Your task to perform on an android device: Show me popular games on the Play Store Image 0: 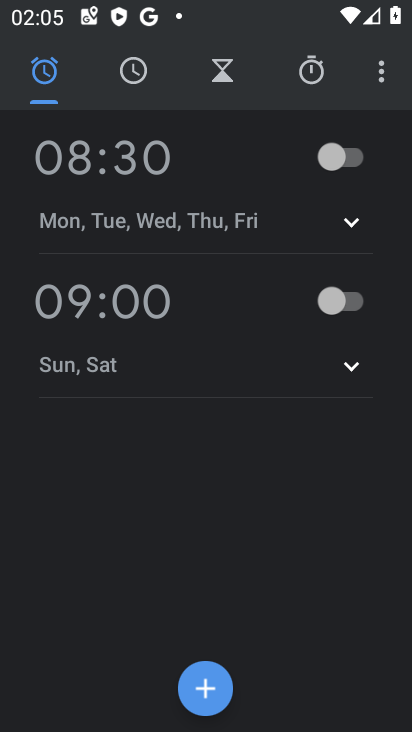
Step 0: press home button
Your task to perform on an android device: Show me popular games on the Play Store Image 1: 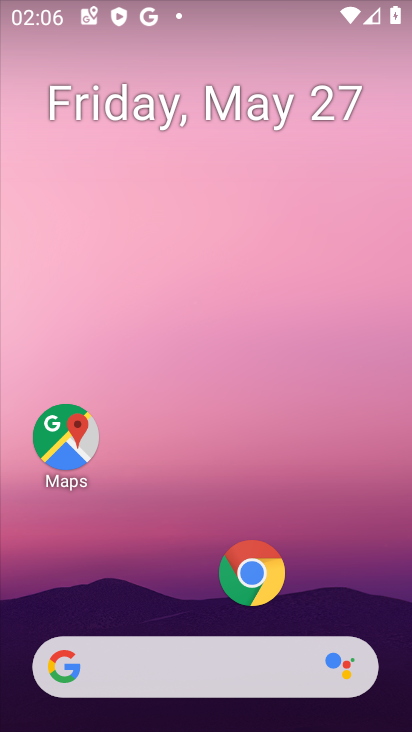
Step 1: drag from (251, 621) to (215, 48)
Your task to perform on an android device: Show me popular games on the Play Store Image 2: 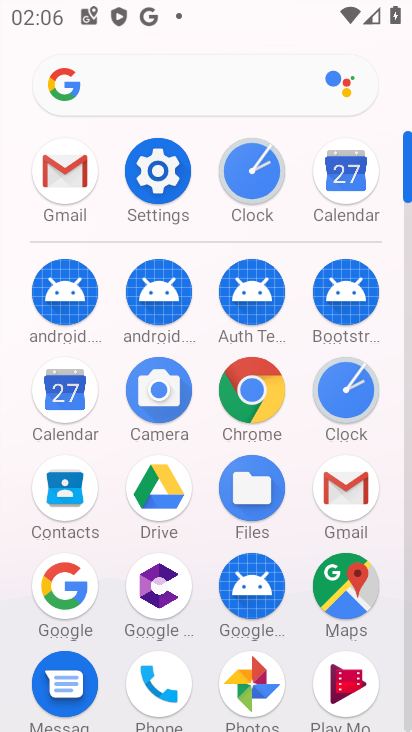
Step 2: drag from (208, 622) to (210, 194)
Your task to perform on an android device: Show me popular games on the Play Store Image 3: 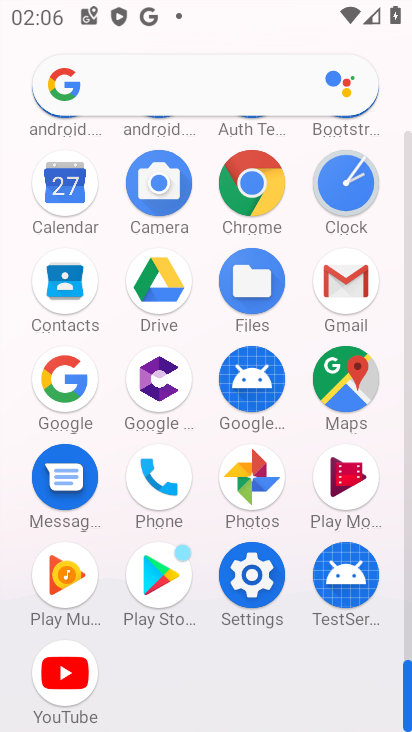
Step 3: click (165, 569)
Your task to perform on an android device: Show me popular games on the Play Store Image 4: 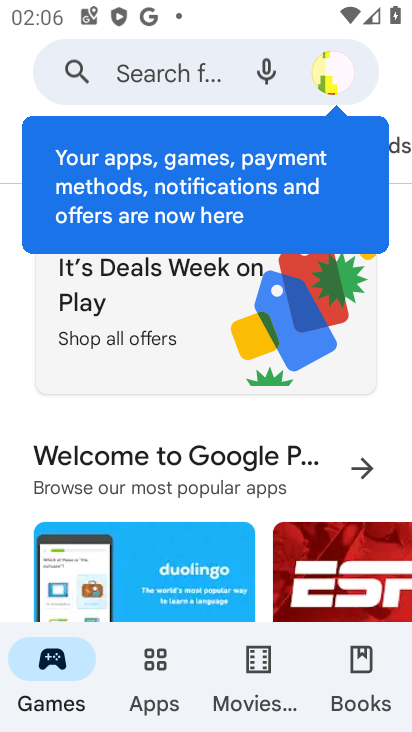
Step 4: drag from (172, 506) to (130, 96)
Your task to perform on an android device: Show me popular games on the Play Store Image 5: 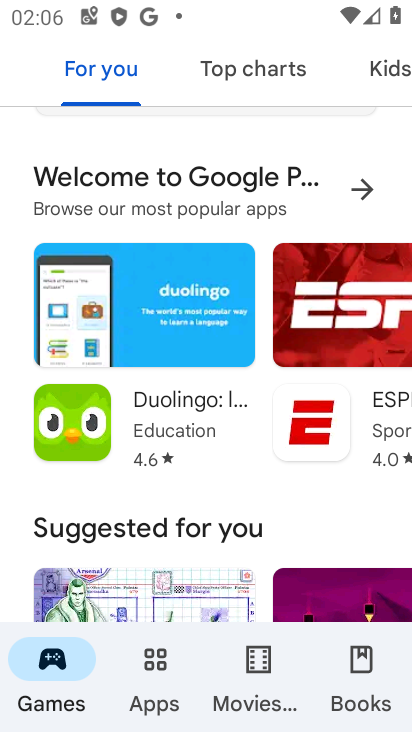
Step 5: drag from (246, 531) to (210, 28)
Your task to perform on an android device: Show me popular games on the Play Store Image 6: 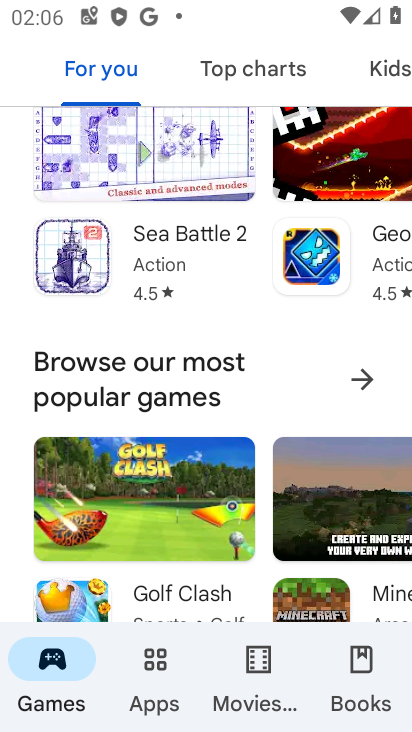
Step 6: click (234, 403)
Your task to perform on an android device: Show me popular games on the Play Store Image 7: 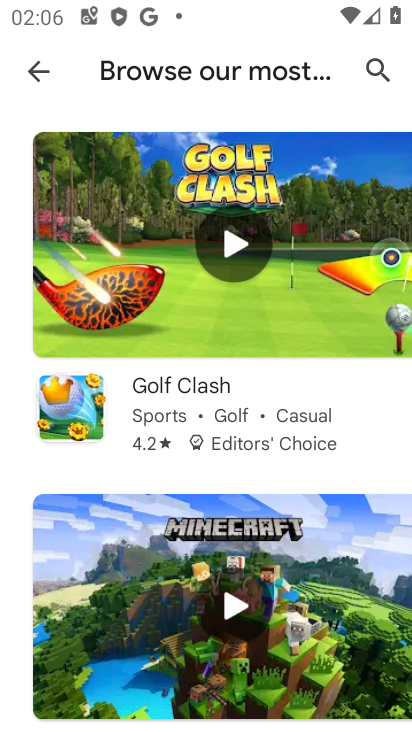
Step 7: task complete